Your task to perform on an android device: change timer sound Image 0: 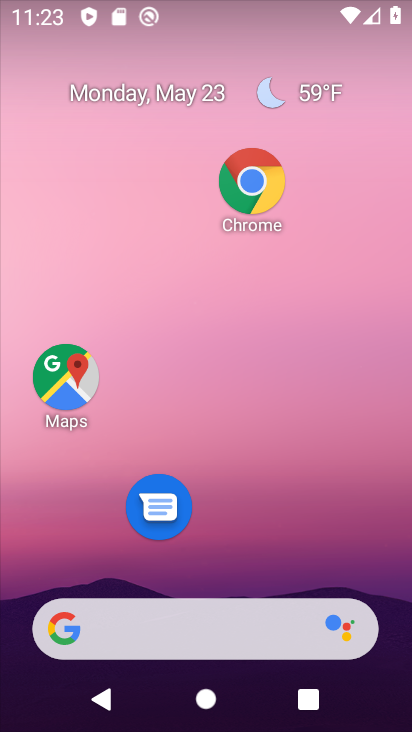
Step 0: drag from (314, 529) to (296, 277)
Your task to perform on an android device: change timer sound Image 1: 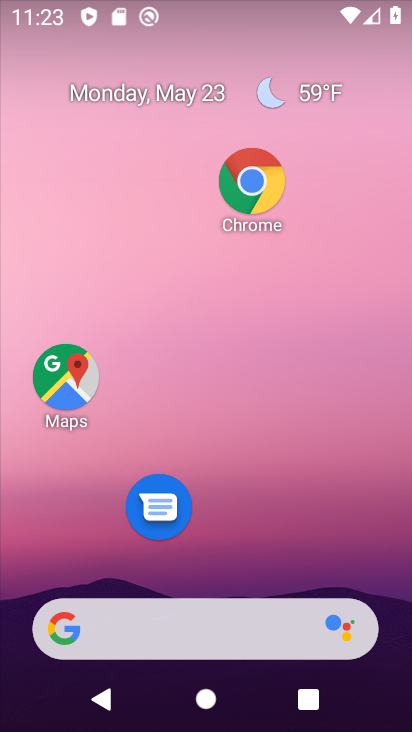
Step 1: drag from (286, 573) to (336, 253)
Your task to perform on an android device: change timer sound Image 2: 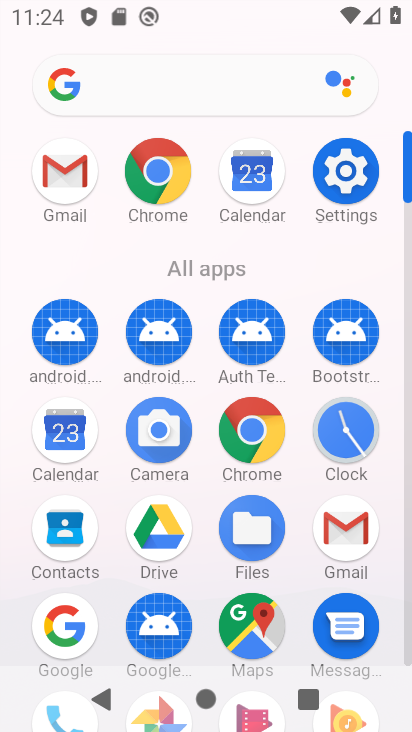
Step 2: click (73, 434)
Your task to perform on an android device: change timer sound Image 3: 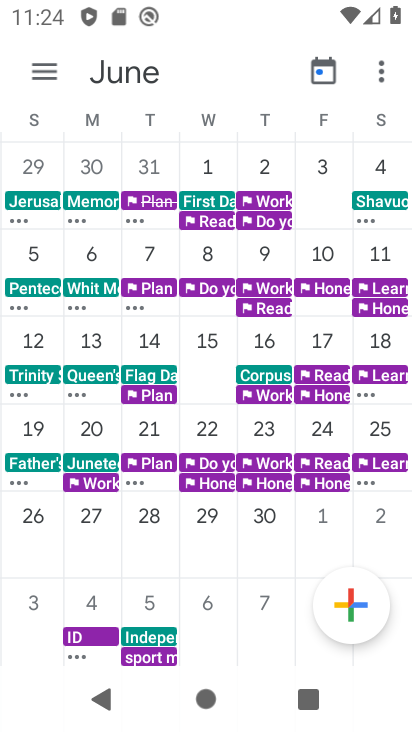
Step 3: press home button
Your task to perform on an android device: change timer sound Image 4: 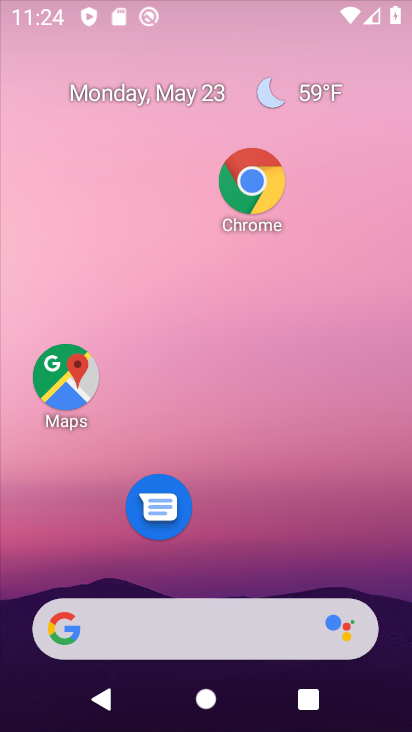
Step 4: drag from (309, 471) to (305, 220)
Your task to perform on an android device: change timer sound Image 5: 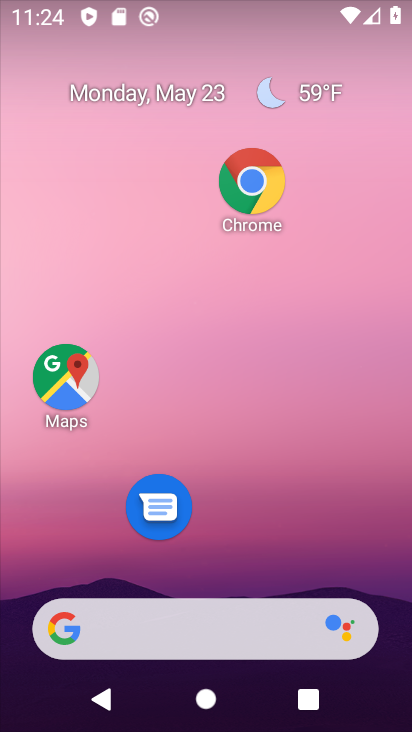
Step 5: drag from (323, 420) to (370, 201)
Your task to perform on an android device: change timer sound Image 6: 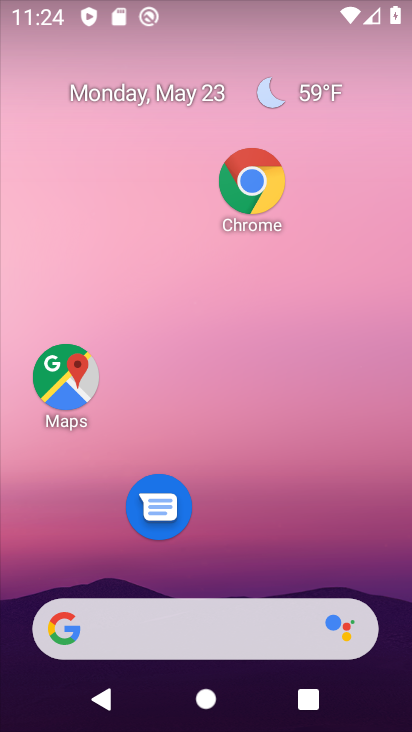
Step 6: drag from (313, 628) to (336, 286)
Your task to perform on an android device: change timer sound Image 7: 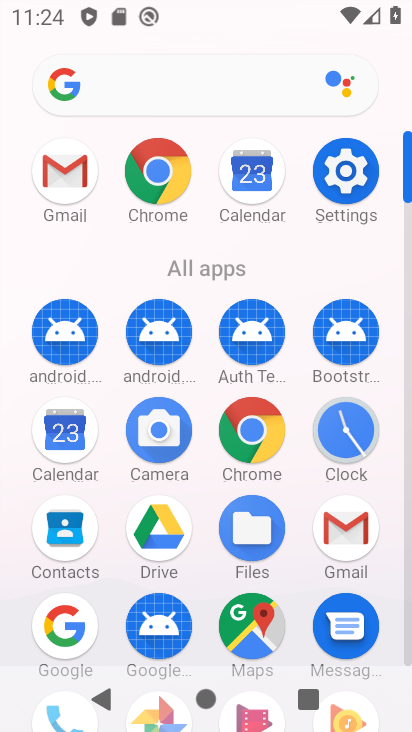
Step 7: click (350, 435)
Your task to perform on an android device: change timer sound Image 8: 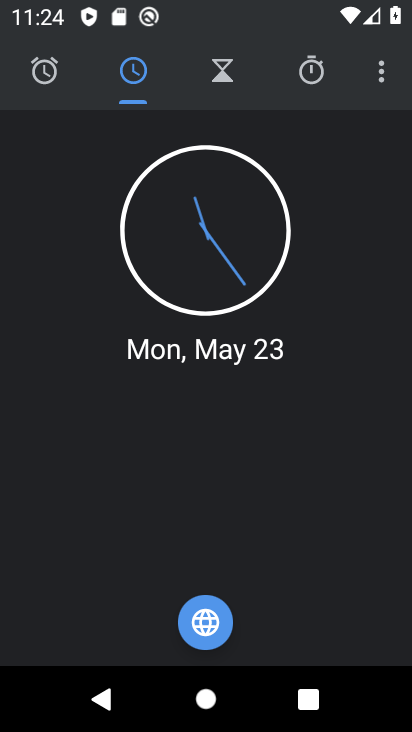
Step 8: click (363, 70)
Your task to perform on an android device: change timer sound Image 9: 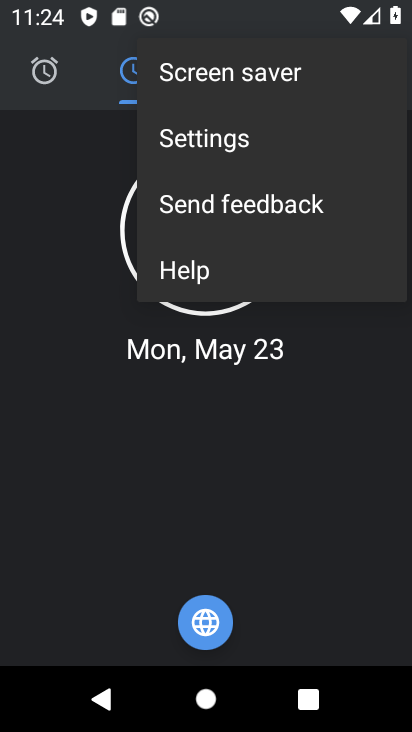
Step 9: click (273, 136)
Your task to perform on an android device: change timer sound Image 10: 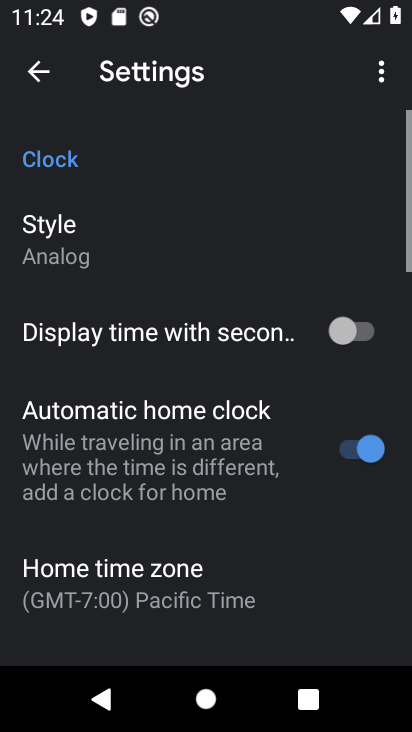
Step 10: drag from (285, 295) to (310, 128)
Your task to perform on an android device: change timer sound Image 11: 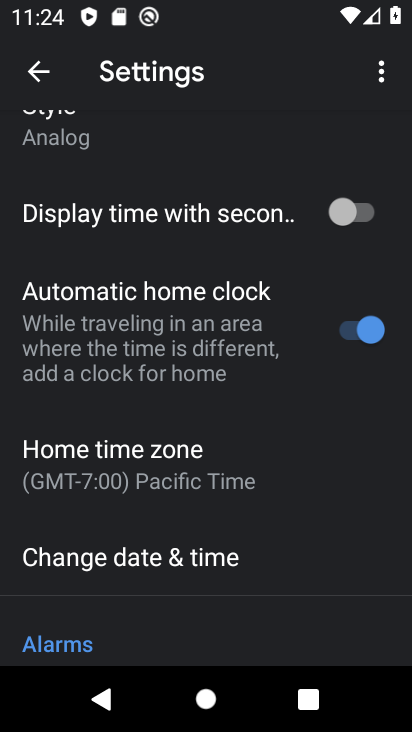
Step 11: drag from (205, 597) to (247, 148)
Your task to perform on an android device: change timer sound Image 12: 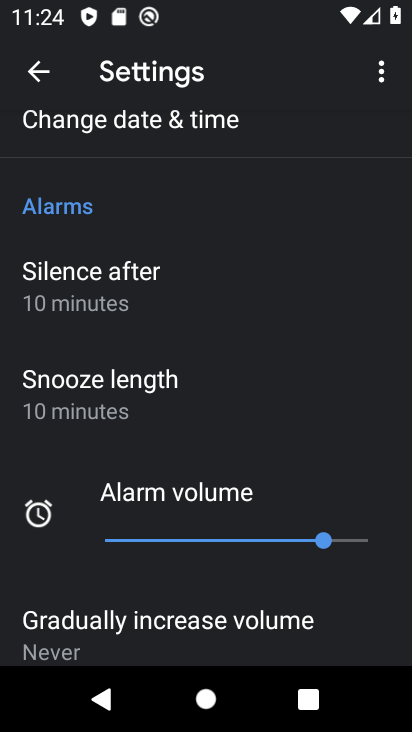
Step 12: drag from (177, 500) to (273, 168)
Your task to perform on an android device: change timer sound Image 13: 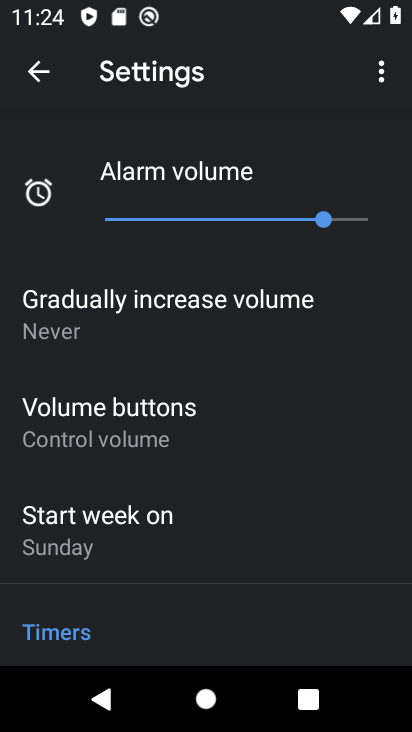
Step 13: drag from (112, 540) to (196, 259)
Your task to perform on an android device: change timer sound Image 14: 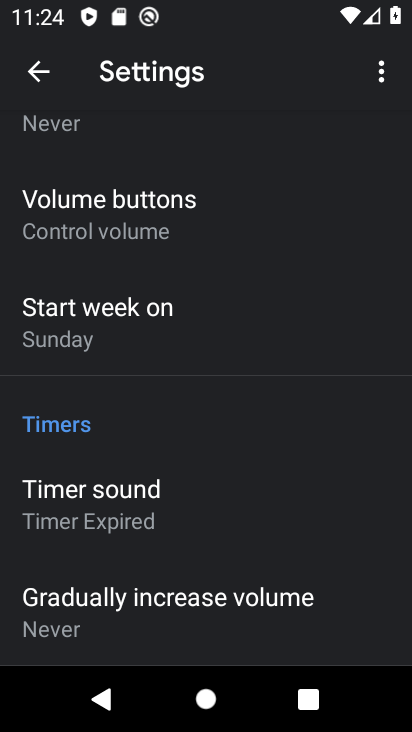
Step 14: click (119, 516)
Your task to perform on an android device: change timer sound Image 15: 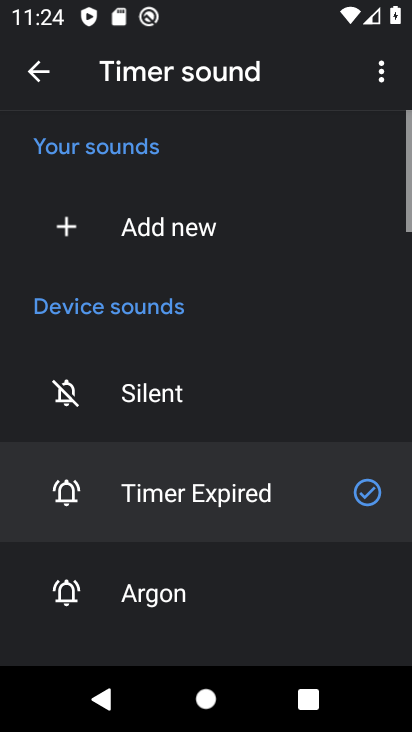
Step 15: drag from (196, 538) to (250, 251)
Your task to perform on an android device: change timer sound Image 16: 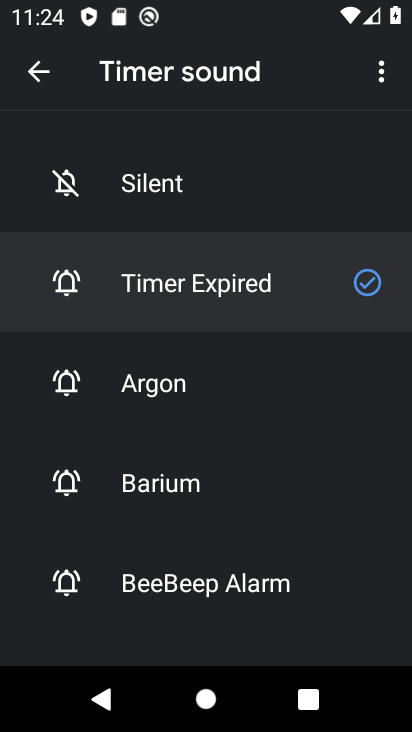
Step 16: click (115, 573)
Your task to perform on an android device: change timer sound Image 17: 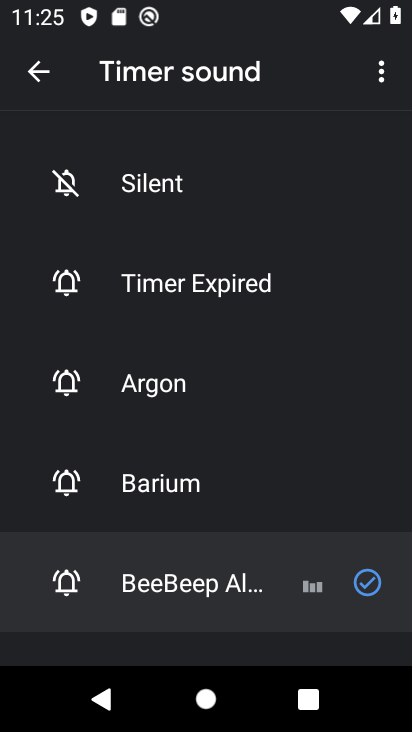
Step 17: task complete